Your task to perform on an android device: Open Google Chrome and click the shortcut for Amazon.com Image 0: 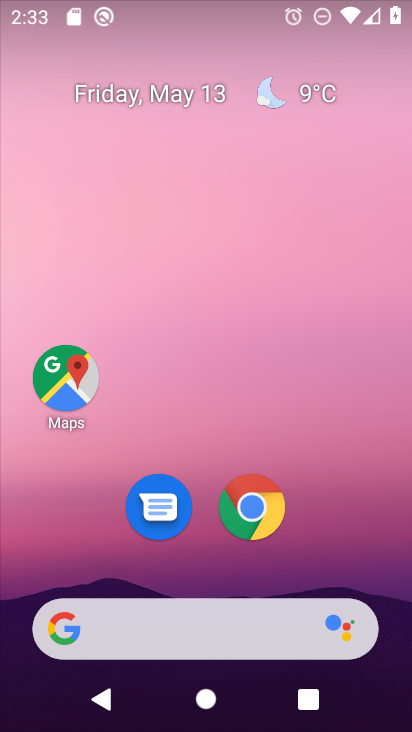
Step 0: drag from (379, 537) to (302, 191)
Your task to perform on an android device: Open Google Chrome and click the shortcut for Amazon.com Image 1: 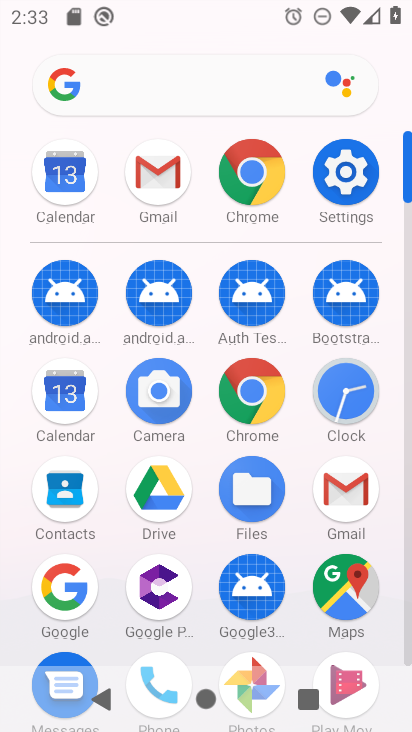
Step 1: click (247, 183)
Your task to perform on an android device: Open Google Chrome and click the shortcut for Amazon.com Image 2: 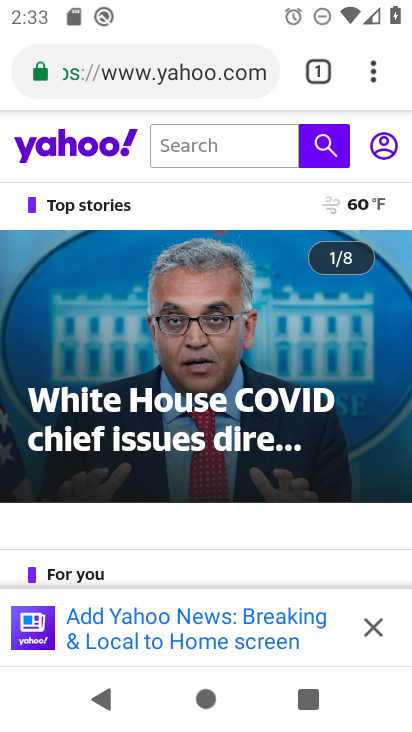
Step 2: click (181, 69)
Your task to perform on an android device: Open Google Chrome and click the shortcut for Amazon.com Image 3: 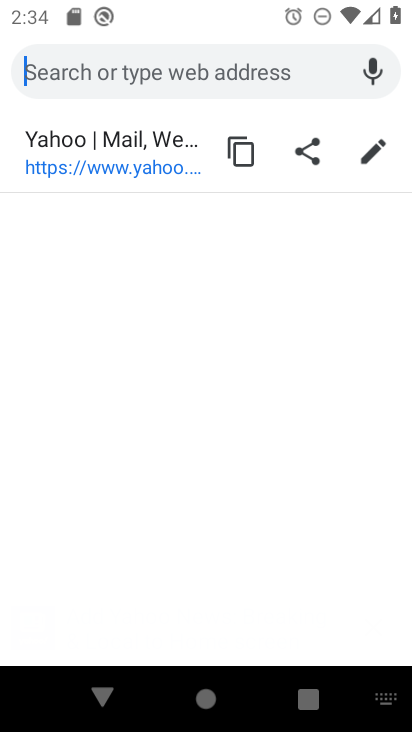
Step 3: type "amazon"
Your task to perform on an android device: Open Google Chrome and click the shortcut for Amazon.com Image 4: 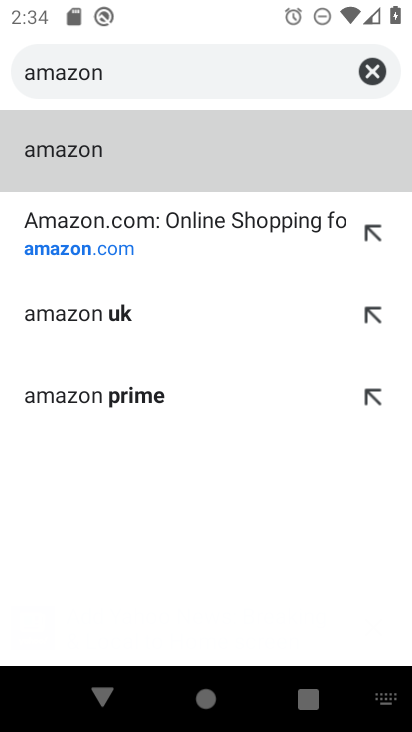
Step 4: click (70, 240)
Your task to perform on an android device: Open Google Chrome and click the shortcut for Amazon.com Image 5: 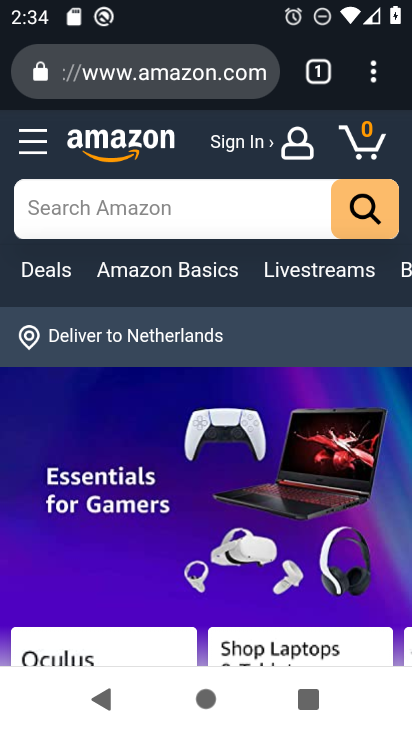
Step 5: drag from (376, 78) to (209, 360)
Your task to perform on an android device: Open Google Chrome and click the shortcut for Amazon.com Image 6: 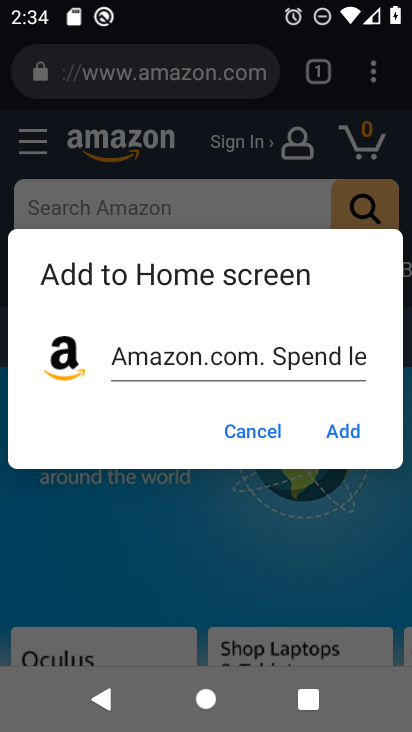
Step 6: click (329, 428)
Your task to perform on an android device: Open Google Chrome and click the shortcut for Amazon.com Image 7: 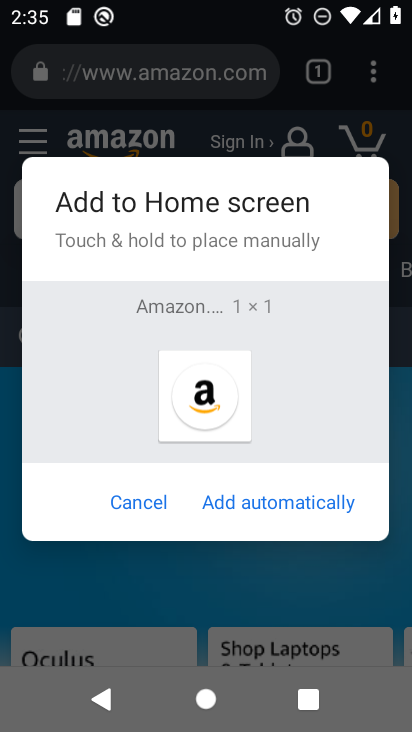
Step 7: click (284, 505)
Your task to perform on an android device: Open Google Chrome and click the shortcut for Amazon.com Image 8: 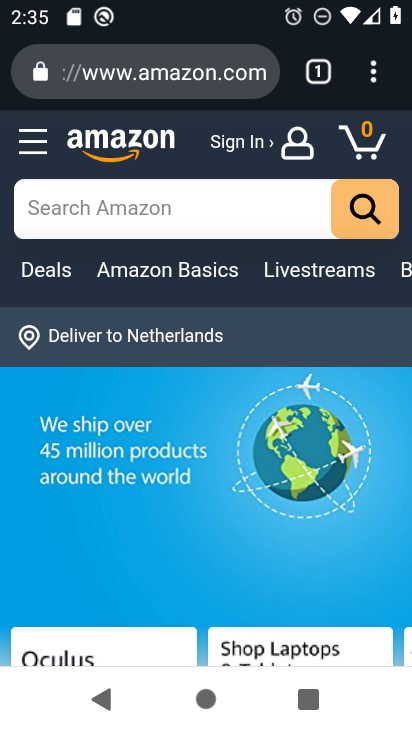
Step 8: task complete